Your task to perform on an android device: turn on airplane mode Image 0: 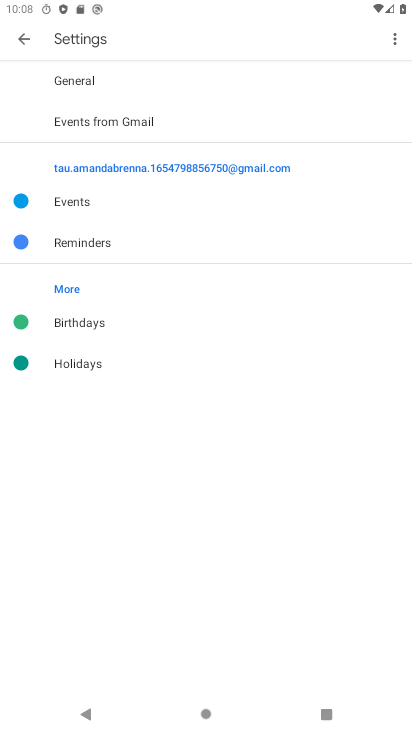
Step 0: click (25, 39)
Your task to perform on an android device: turn on airplane mode Image 1: 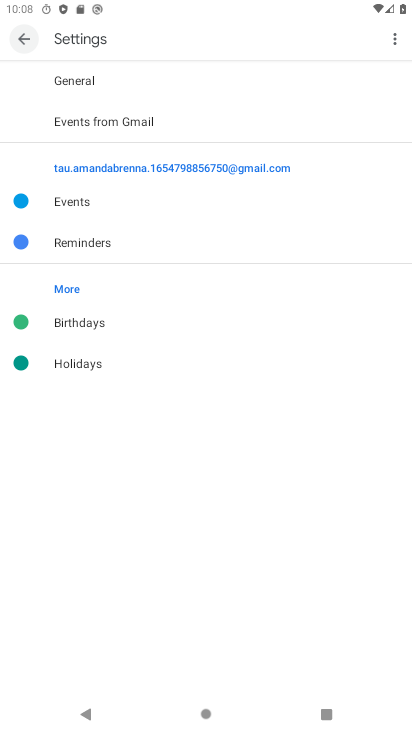
Step 1: click (25, 40)
Your task to perform on an android device: turn on airplane mode Image 2: 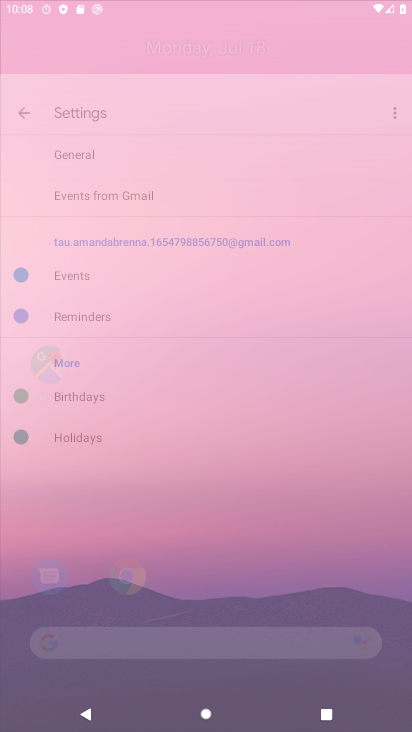
Step 2: click (27, 41)
Your task to perform on an android device: turn on airplane mode Image 3: 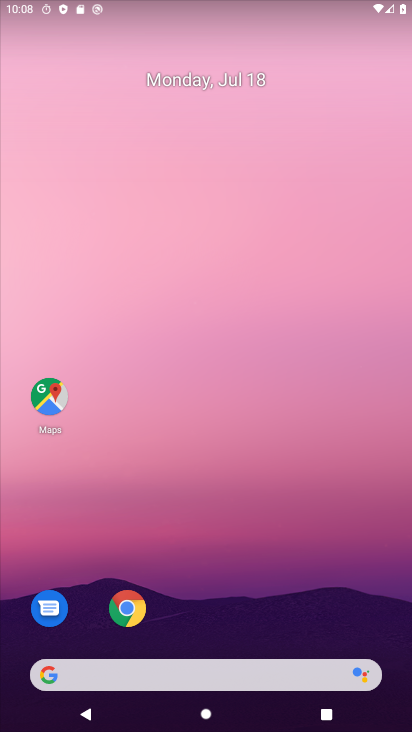
Step 3: drag from (286, 668) to (263, 126)
Your task to perform on an android device: turn on airplane mode Image 4: 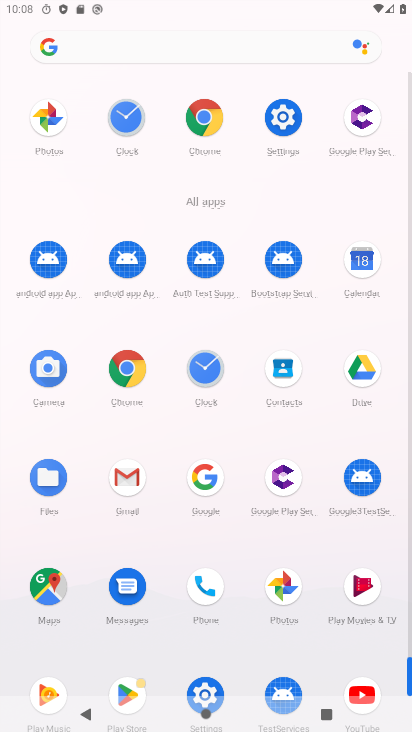
Step 4: click (275, 113)
Your task to perform on an android device: turn on airplane mode Image 5: 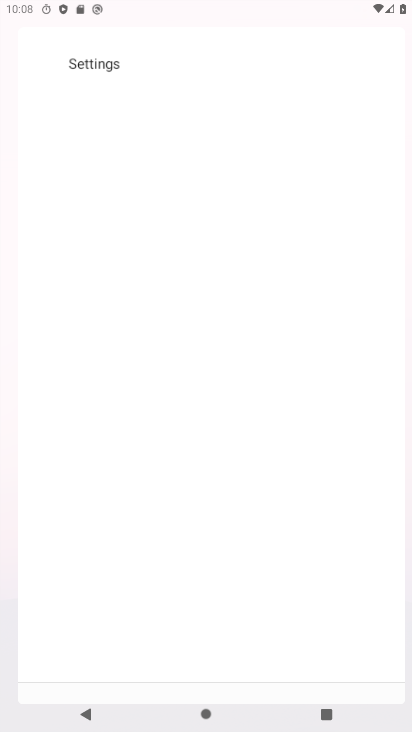
Step 5: click (276, 113)
Your task to perform on an android device: turn on airplane mode Image 6: 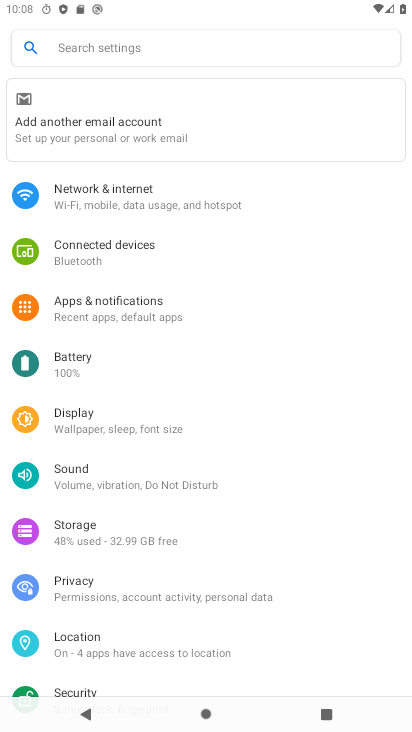
Step 6: click (276, 113)
Your task to perform on an android device: turn on airplane mode Image 7: 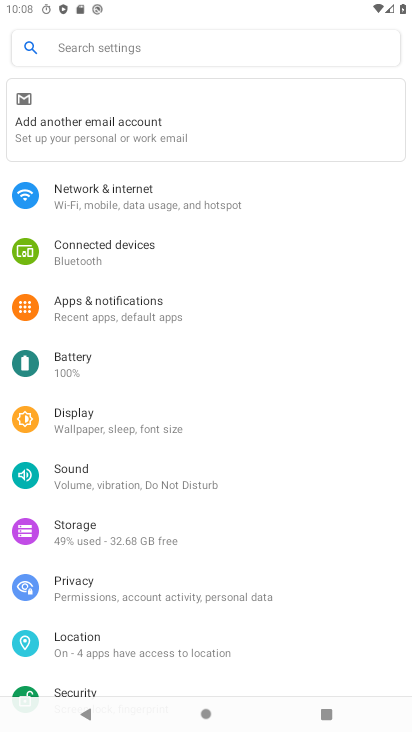
Step 7: click (100, 194)
Your task to perform on an android device: turn on airplane mode Image 8: 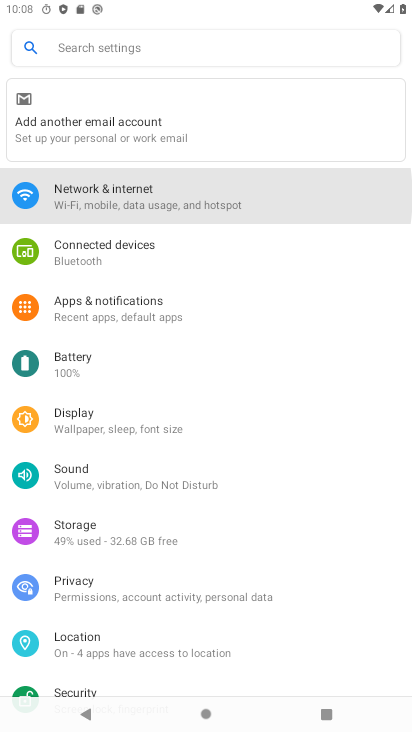
Step 8: click (102, 194)
Your task to perform on an android device: turn on airplane mode Image 9: 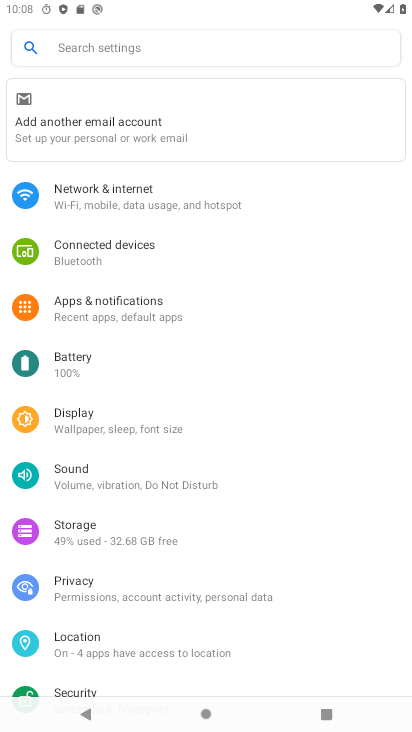
Step 9: click (103, 194)
Your task to perform on an android device: turn on airplane mode Image 10: 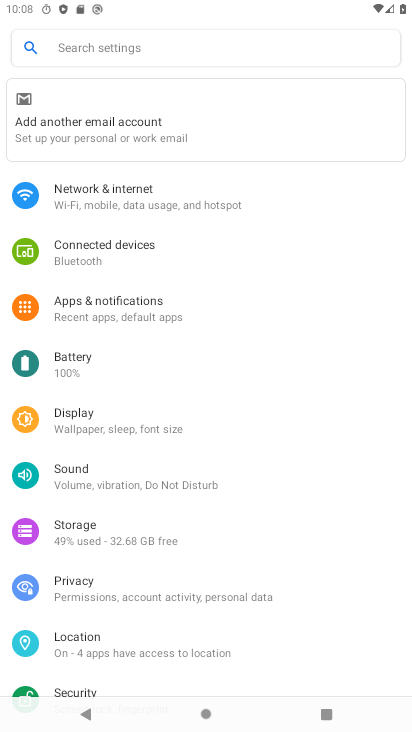
Step 10: click (105, 195)
Your task to perform on an android device: turn on airplane mode Image 11: 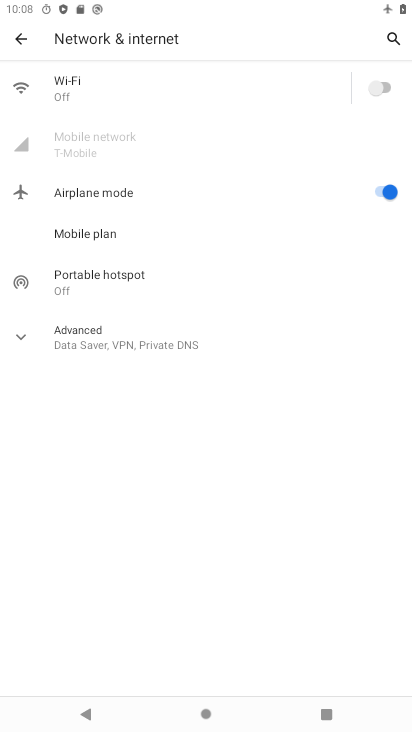
Step 11: task complete